Your task to perform on an android device: choose inbox layout in the gmail app Image 0: 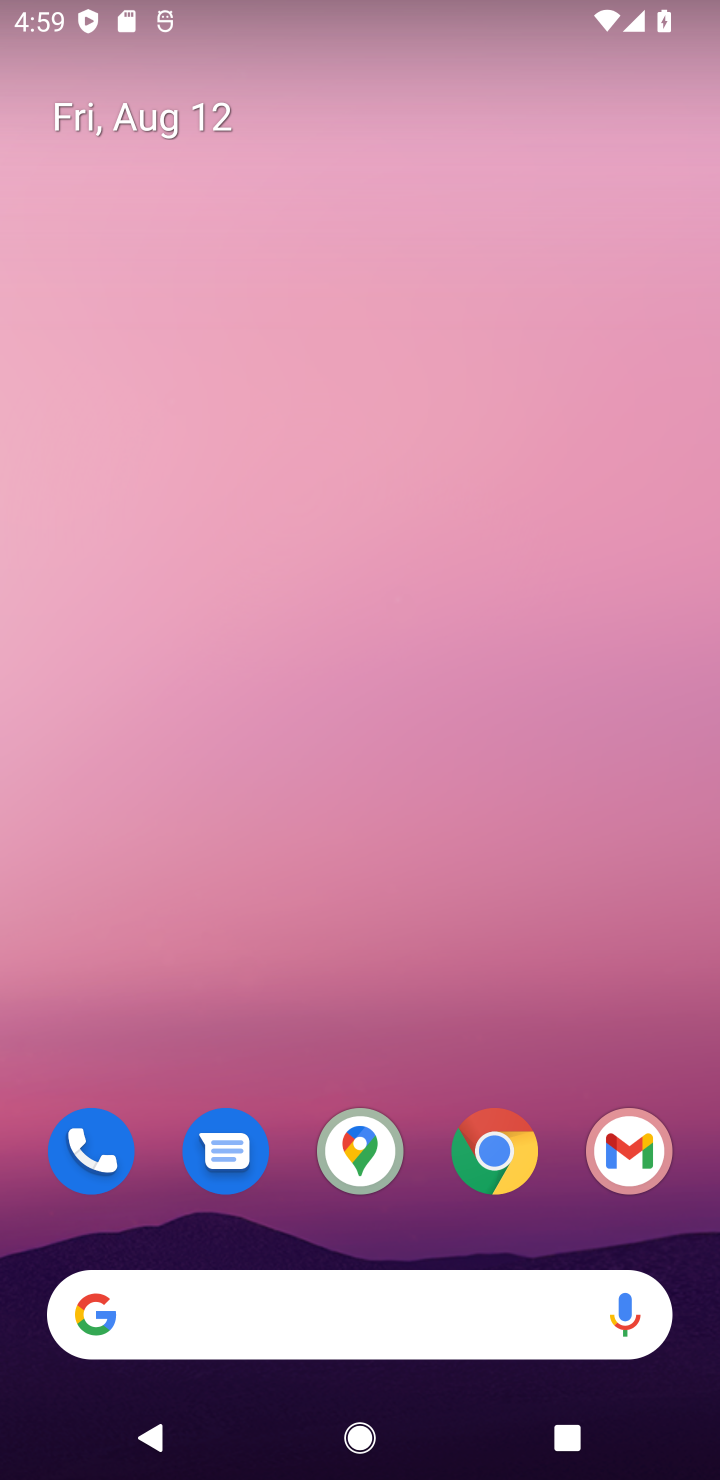
Step 0: drag from (425, 676) to (473, 174)
Your task to perform on an android device: choose inbox layout in the gmail app Image 1: 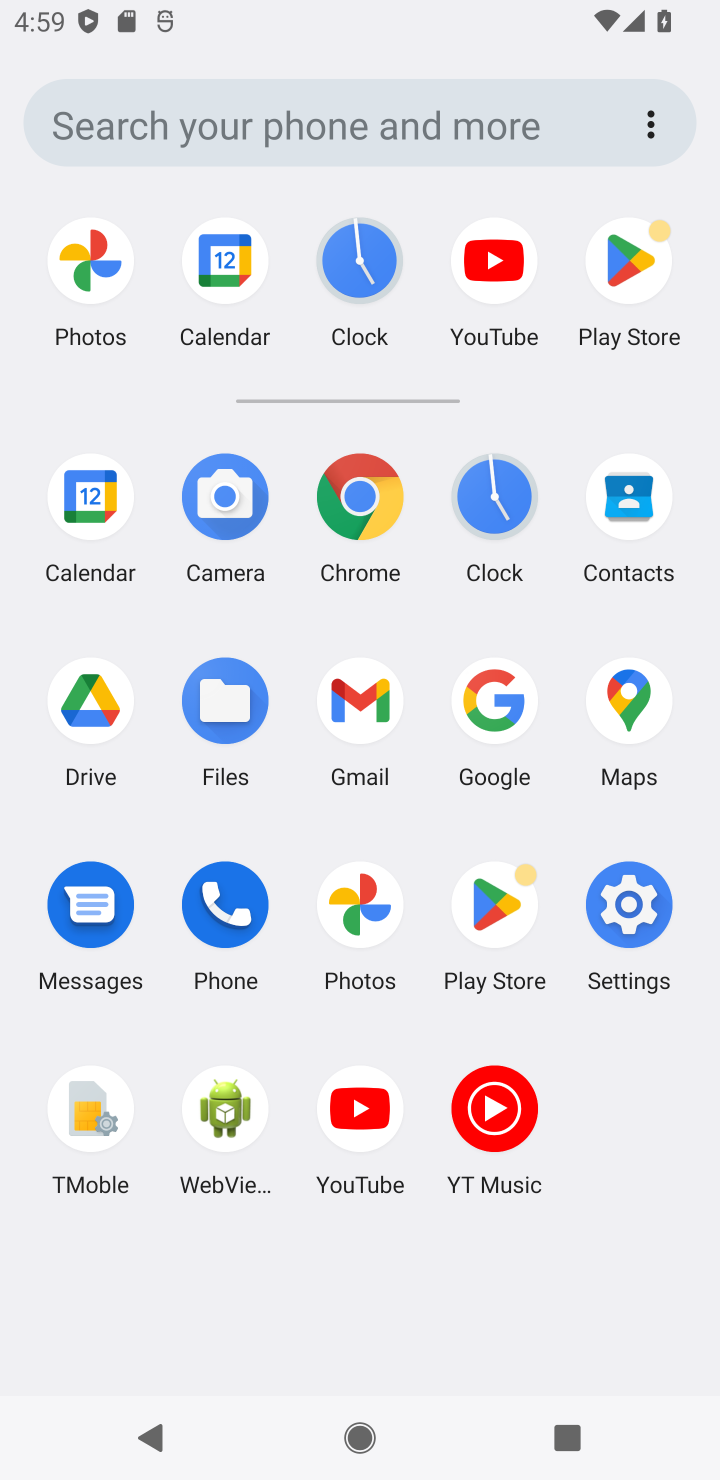
Step 1: click (378, 691)
Your task to perform on an android device: choose inbox layout in the gmail app Image 2: 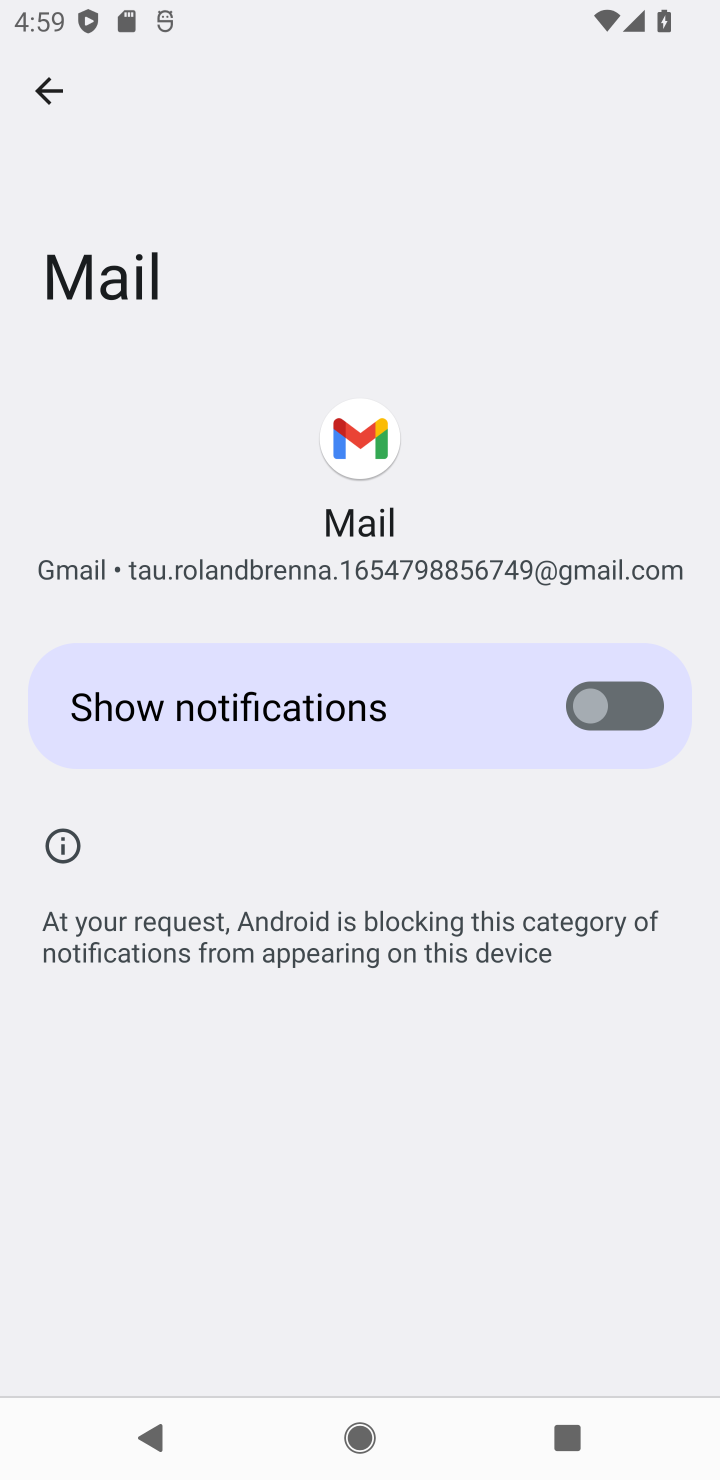
Step 2: press back button
Your task to perform on an android device: choose inbox layout in the gmail app Image 3: 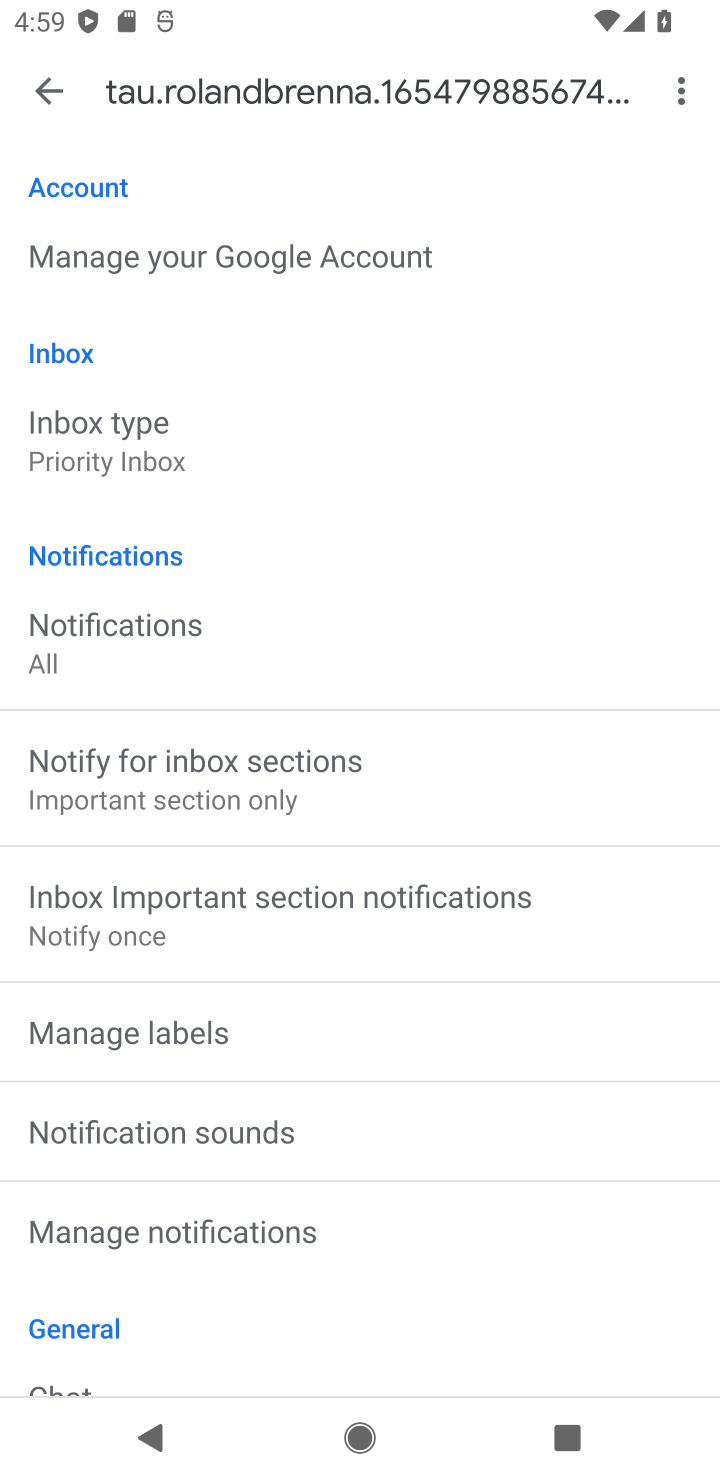
Step 3: click (115, 454)
Your task to perform on an android device: choose inbox layout in the gmail app Image 4: 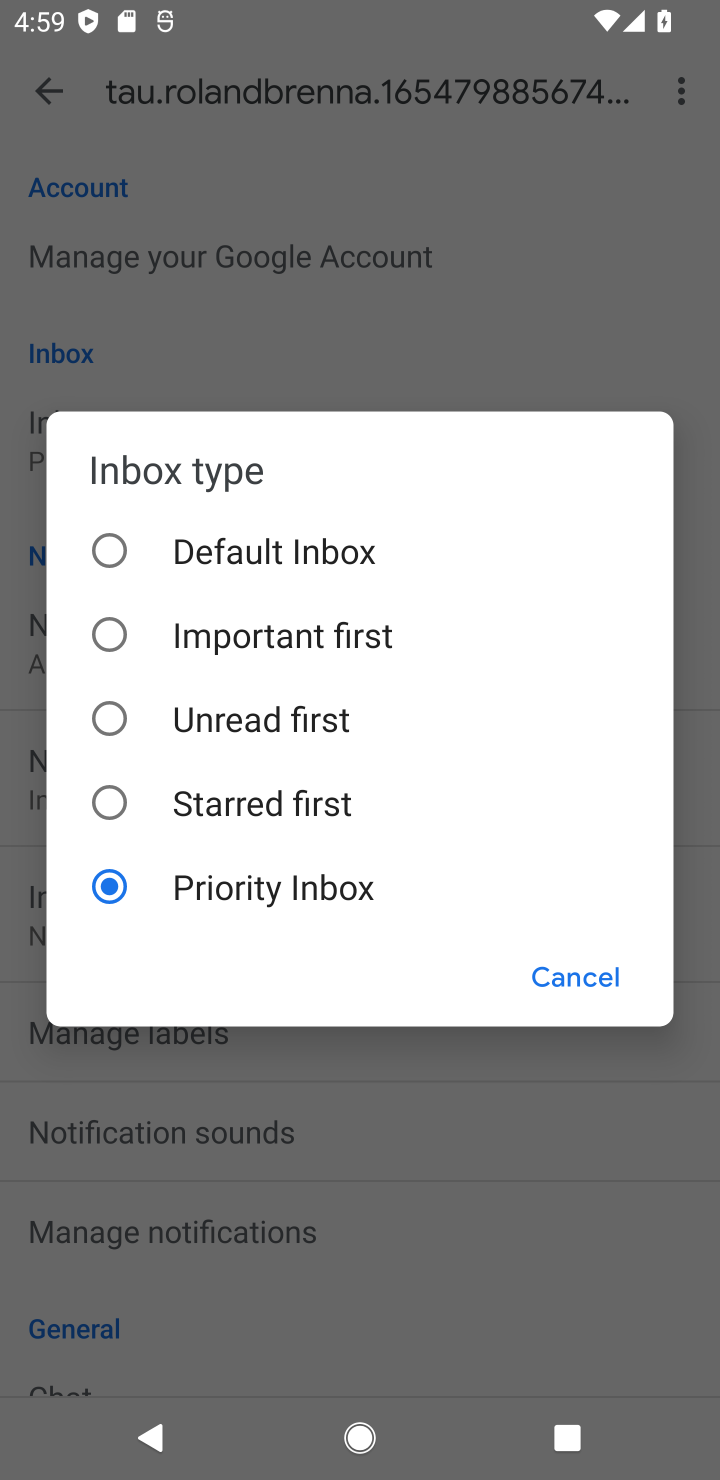
Step 4: task complete